Your task to perform on an android device: search for starred emails in the gmail app Image 0: 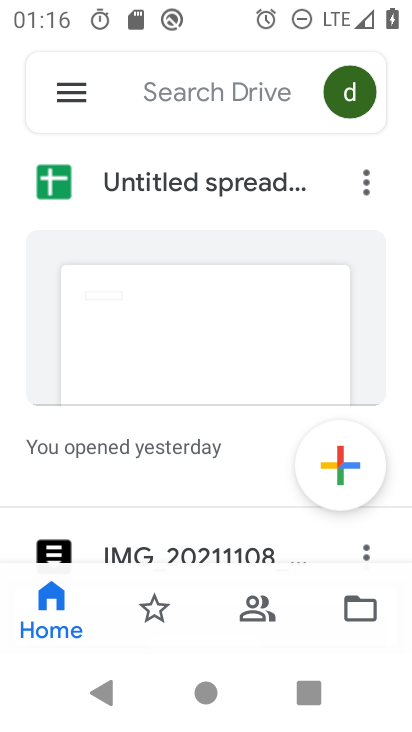
Step 0: press home button
Your task to perform on an android device: search for starred emails in the gmail app Image 1: 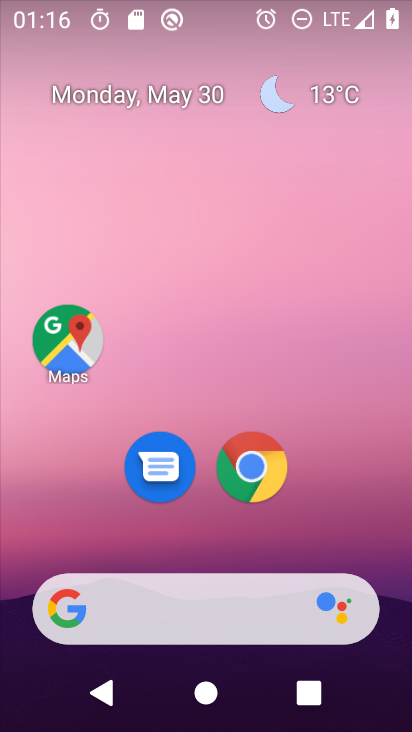
Step 1: drag from (186, 543) to (191, 283)
Your task to perform on an android device: search for starred emails in the gmail app Image 2: 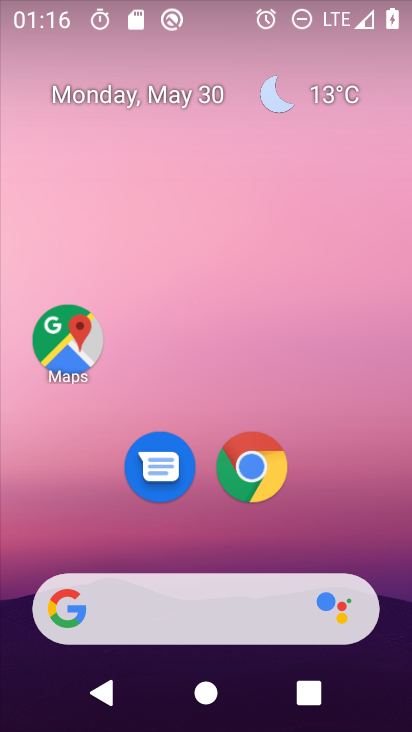
Step 2: drag from (193, 525) to (193, 205)
Your task to perform on an android device: search for starred emails in the gmail app Image 3: 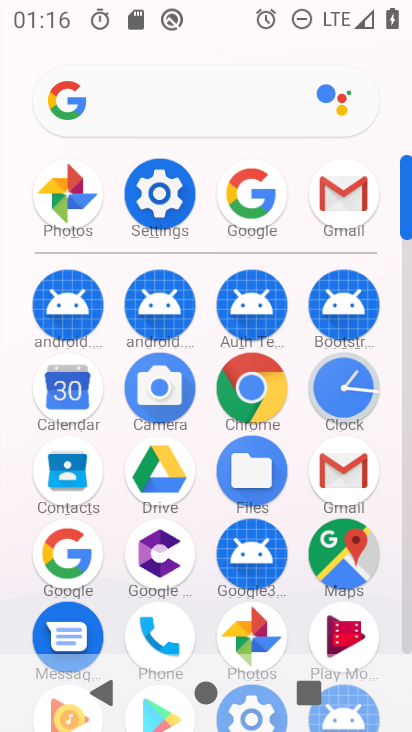
Step 3: click (322, 207)
Your task to perform on an android device: search for starred emails in the gmail app Image 4: 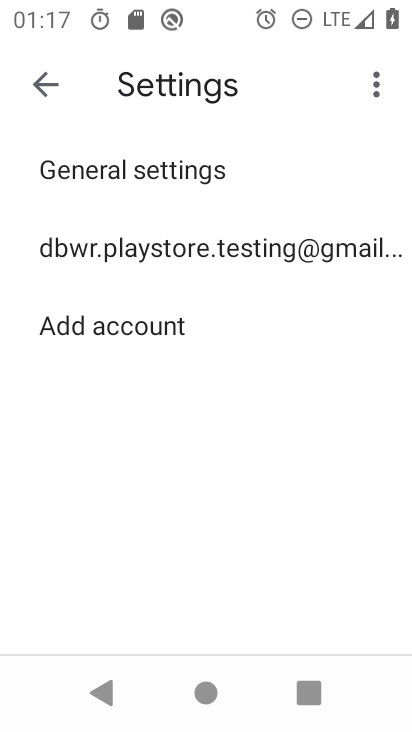
Step 4: click (46, 83)
Your task to perform on an android device: search for starred emails in the gmail app Image 5: 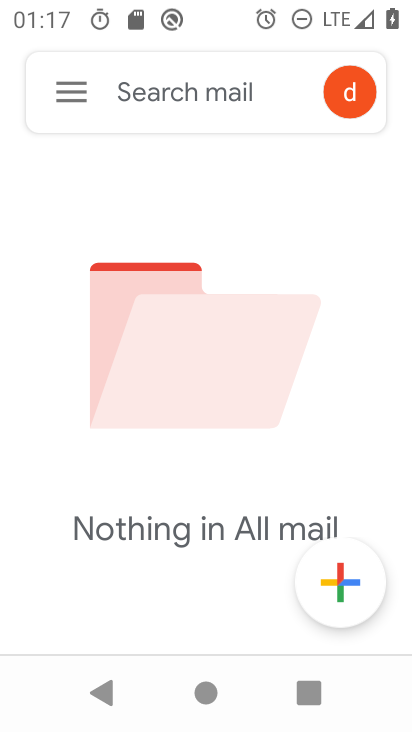
Step 5: click (64, 82)
Your task to perform on an android device: search for starred emails in the gmail app Image 6: 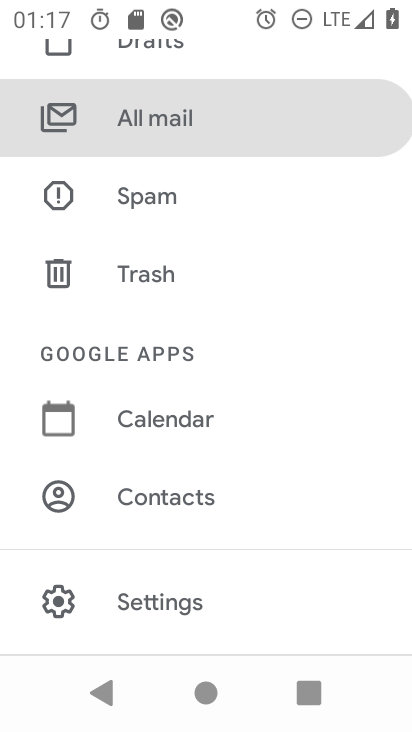
Step 6: drag from (183, 216) to (218, 491)
Your task to perform on an android device: search for starred emails in the gmail app Image 7: 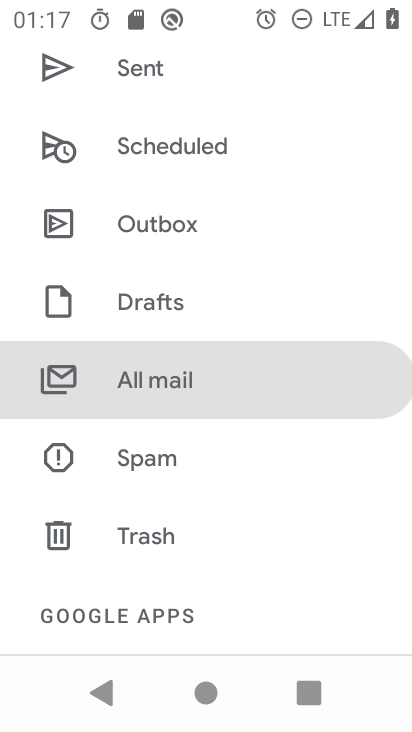
Step 7: drag from (223, 192) to (262, 445)
Your task to perform on an android device: search for starred emails in the gmail app Image 8: 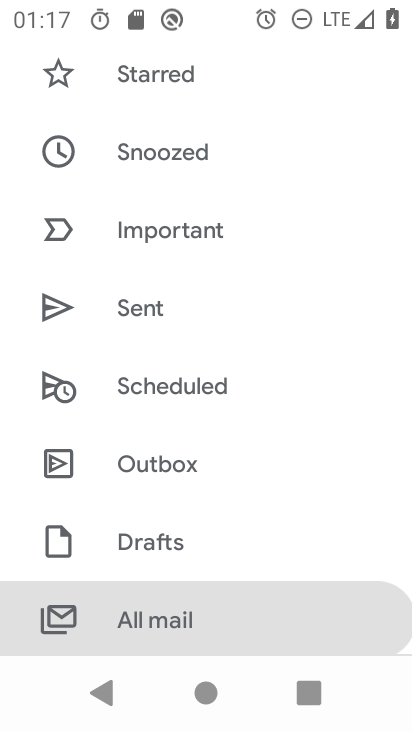
Step 8: click (161, 89)
Your task to perform on an android device: search for starred emails in the gmail app Image 9: 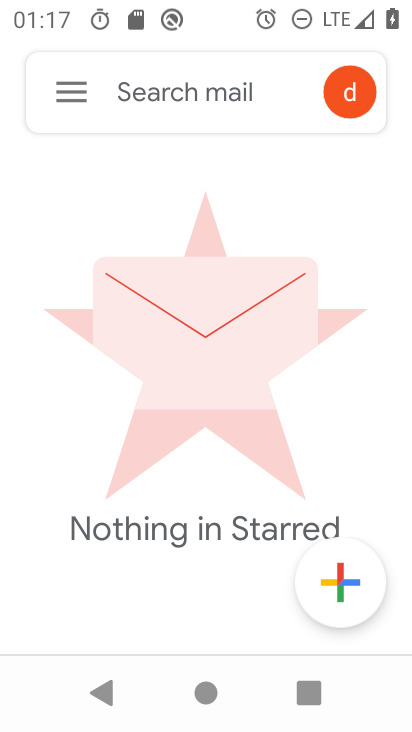
Step 9: task complete